Your task to perform on an android device: Go to Amazon Image 0: 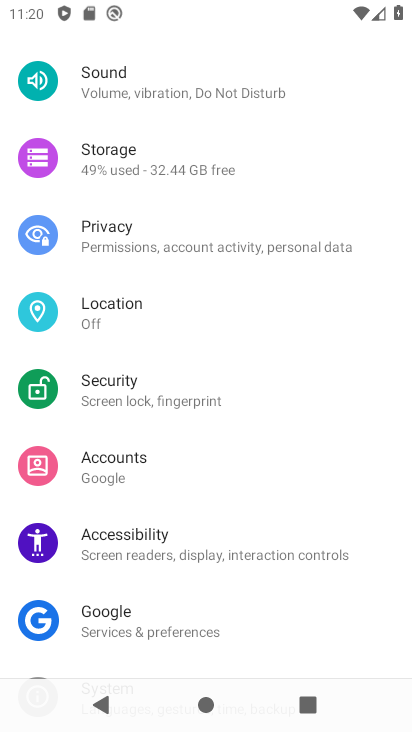
Step 0: press home button
Your task to perform on an android device: Go to Amazon Image 1: 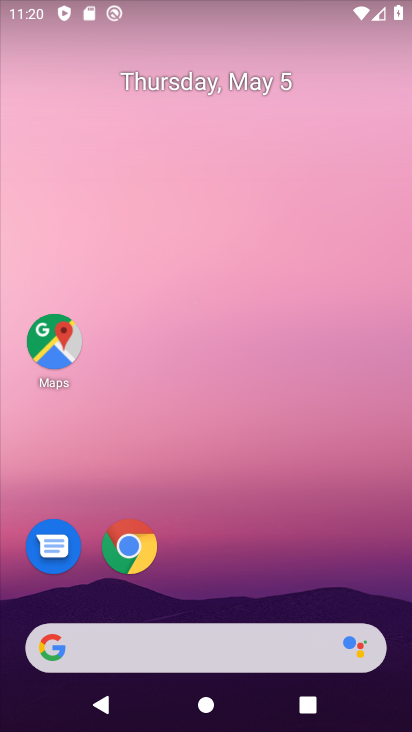
Step 1: drag from (196, 618) to (201, 73)
Your task to perform on an android device: Go to Amazon Image 2: 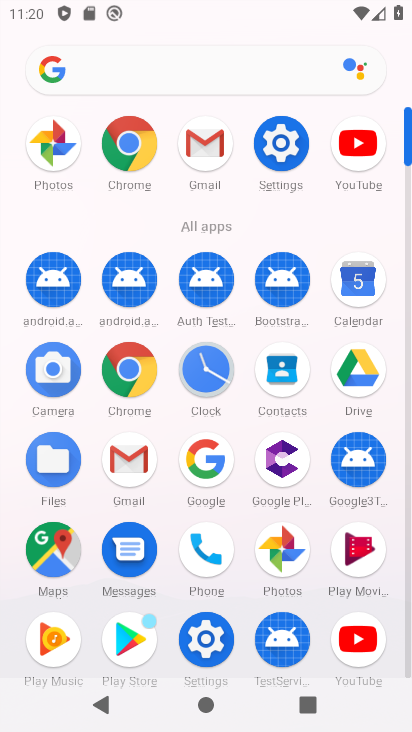
Step 2: click (144, 359)
Your task to perform on an android device: Go to Amazon Image 3: 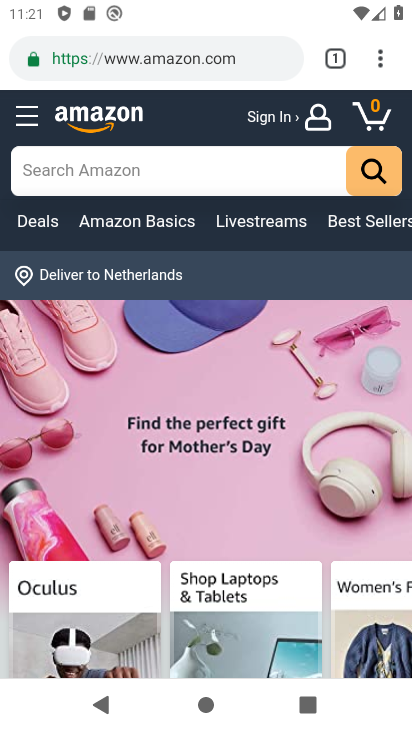
Step 3: task complete